Your task to perform on an android device: set the timer Image 0: 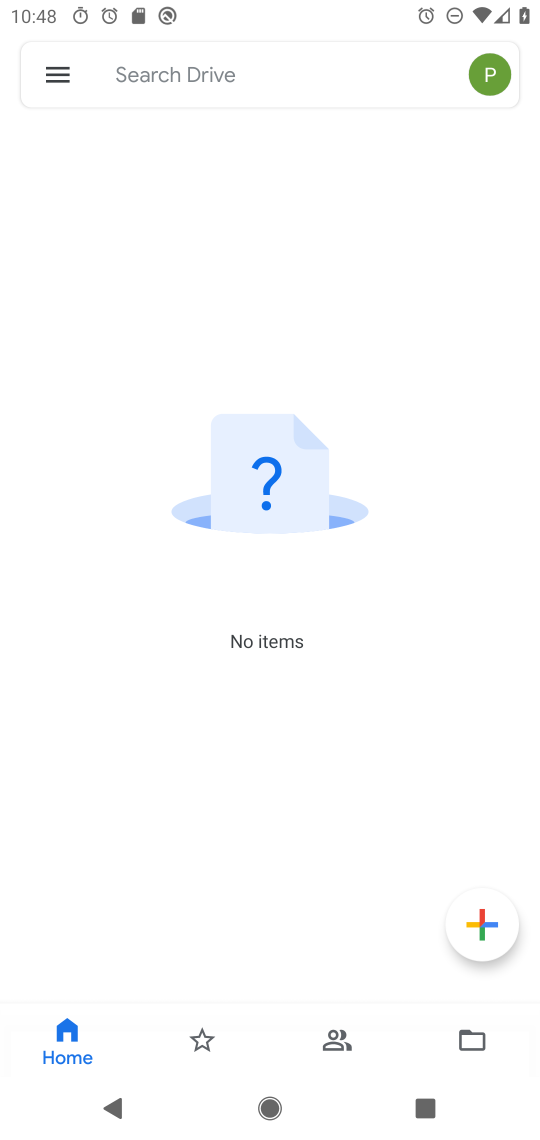
Step 0: press home button
Your task to perform on an android device: set the timer Image 1: 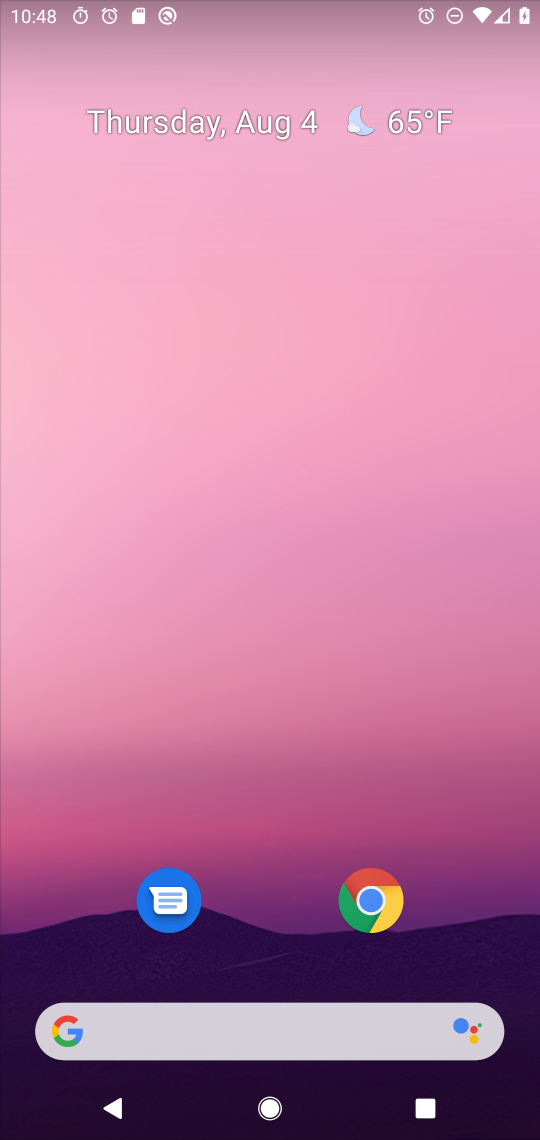
Step 1: drag from (247, 1048) to (218, 176)
Your task to perform on an android device: set the timer Image 2: 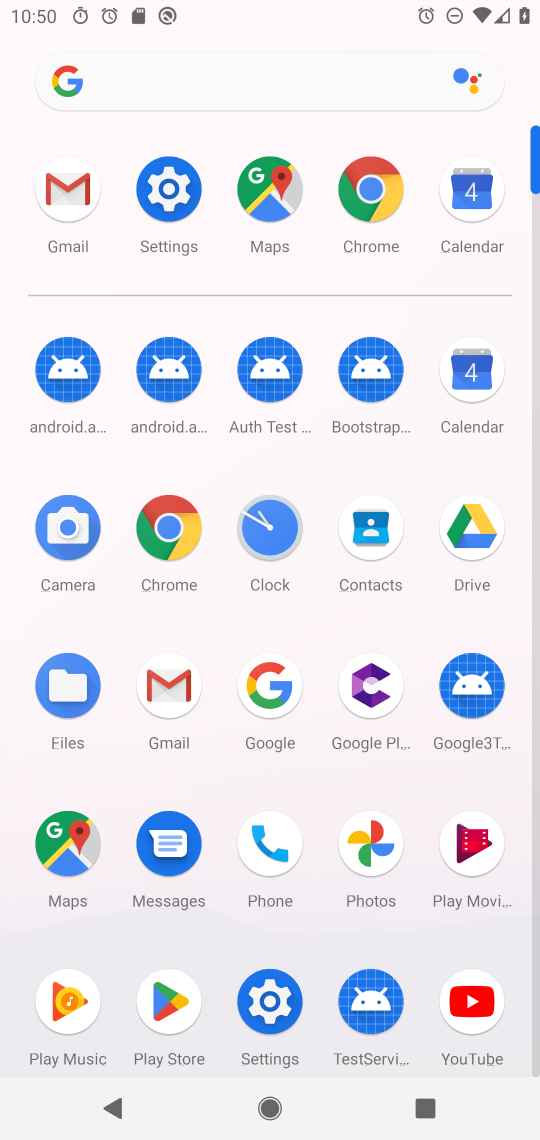
Step 2: click (273, 530)
Your task to perform on an android device: set the timer Image 3: 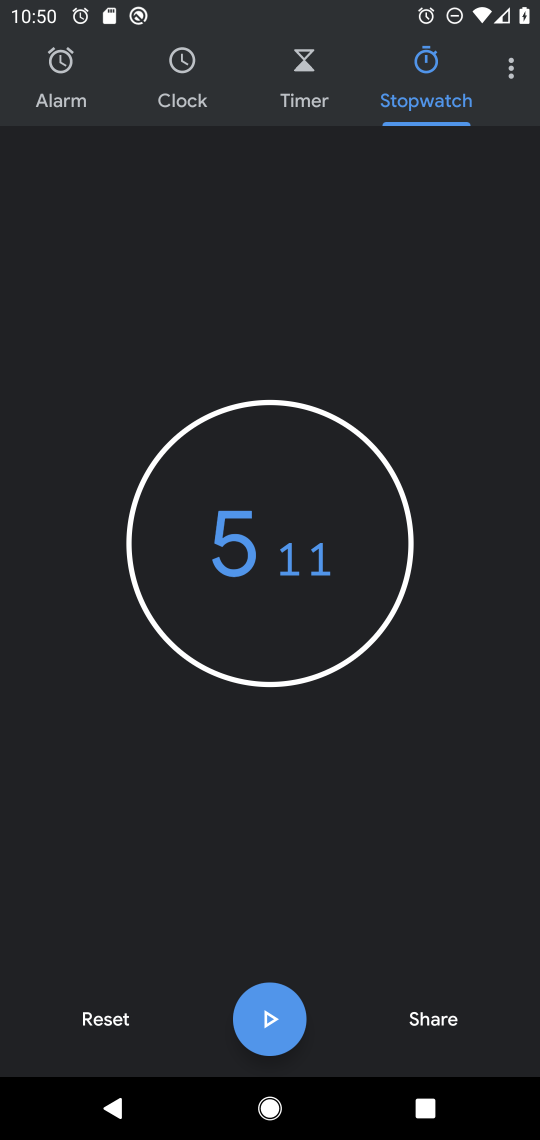
Step 3: click (304, 66)
Your task to perform on an android device: set the timer Image 4: 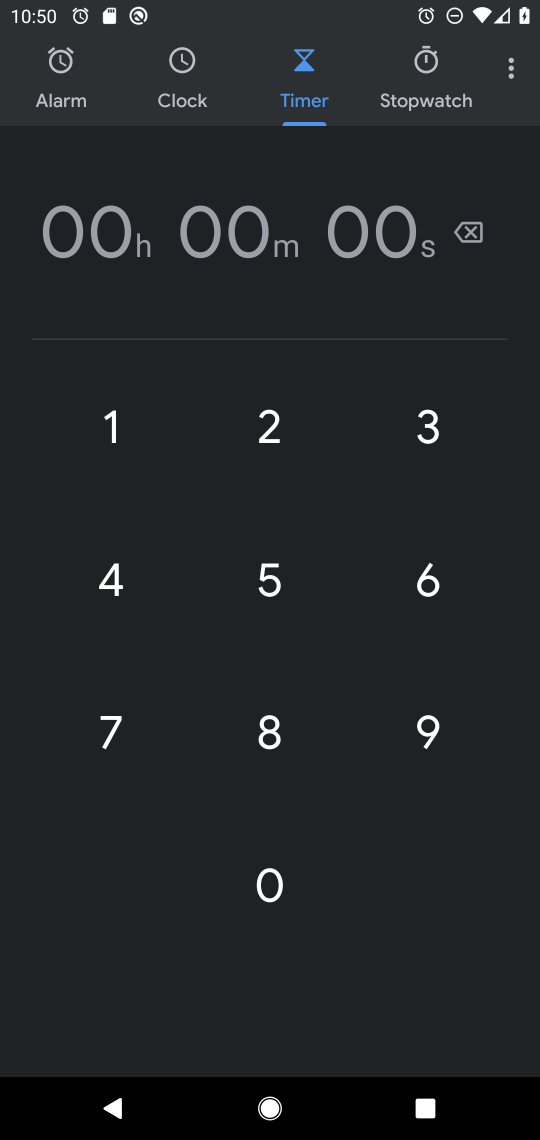
Step 4: type "115"
Your task to perform on an android device: set the timer Image 5: 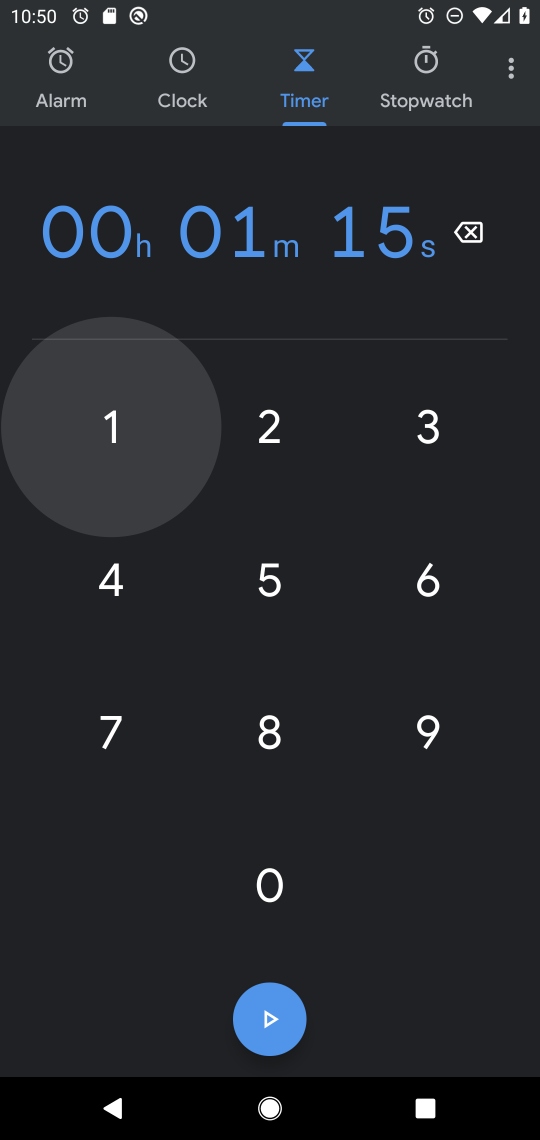
Step 5: click (269, 1030)
Your task to perform on an android device: set the timer Image 6: 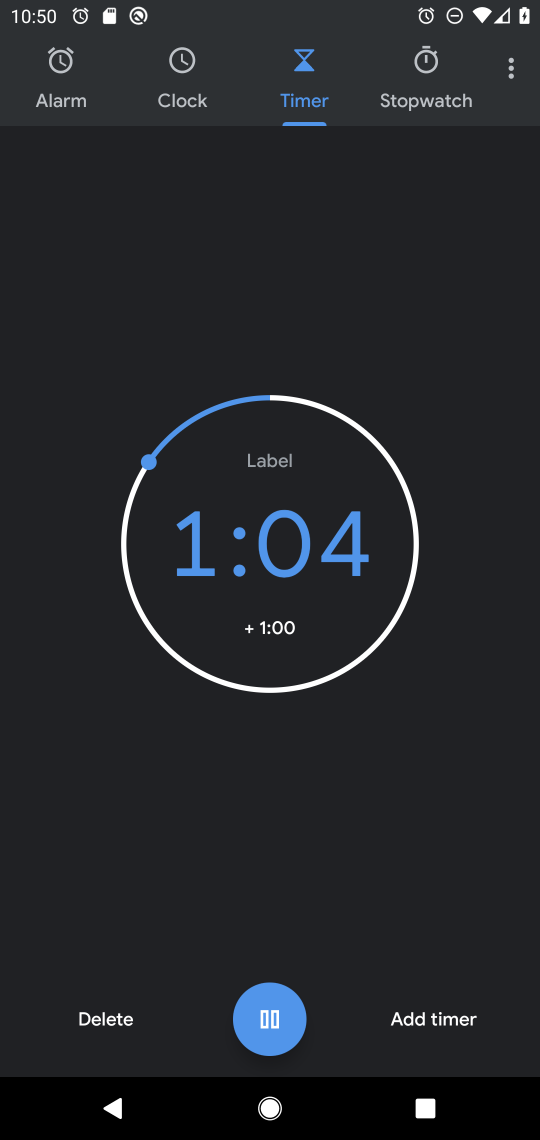
Step 6: click (275, 1030)
Your task to perform on an android device: set the timer Image 7: 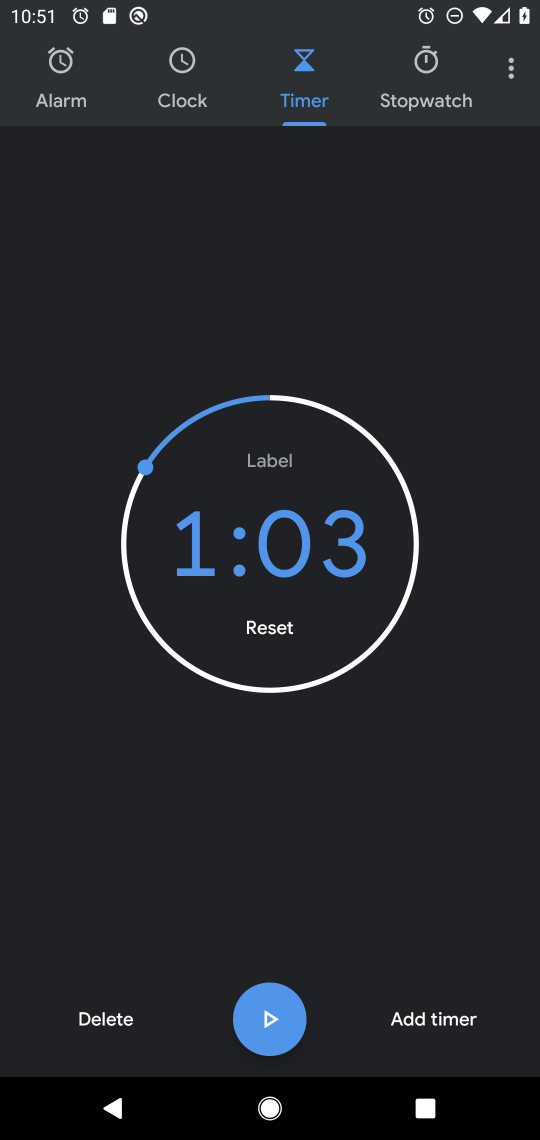
Step 7: task complete